Your task to perform on an android device: See recent photos Image 0: 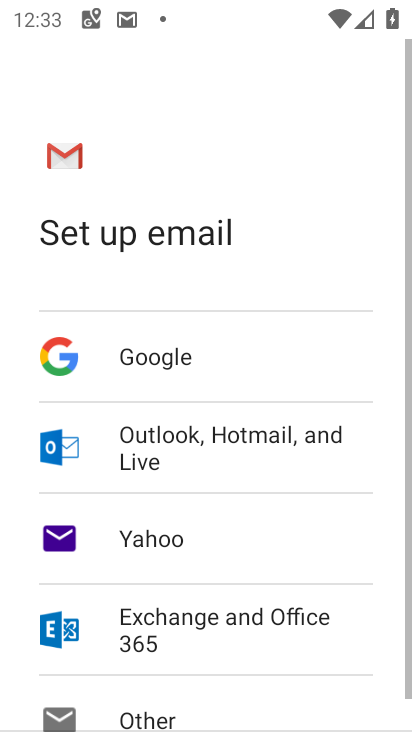
Step 0: press home button
Your task to perform on an android device: See recent photos Image 1: 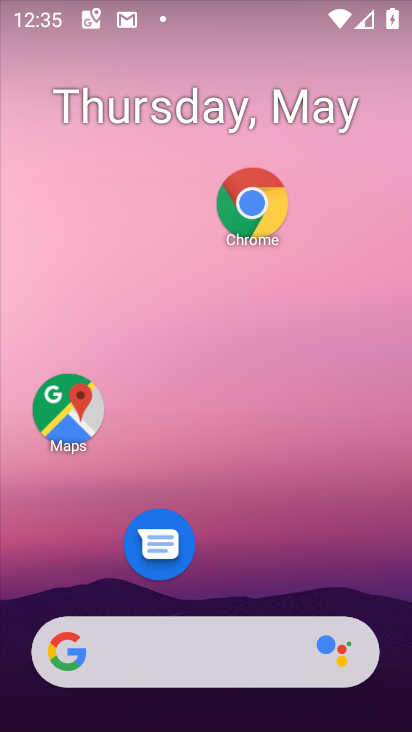
Step 1: drag from (240, 661) to (407, 196)
Your task to perform on an android device: See recent photos Image 2: 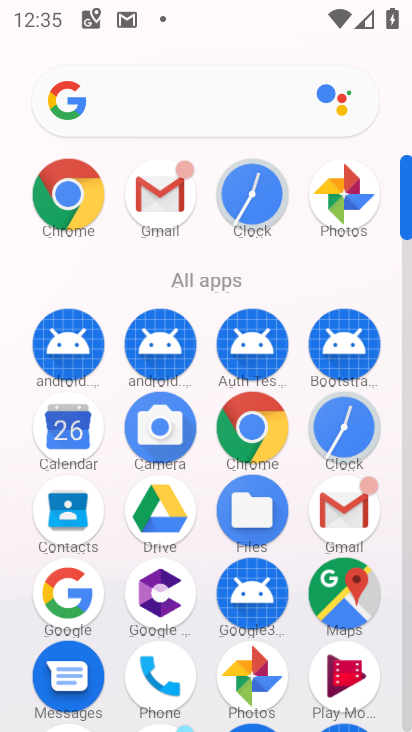
Step 2: click (376, 288)
Your task to perform on an android device: See recent photos Image 3: 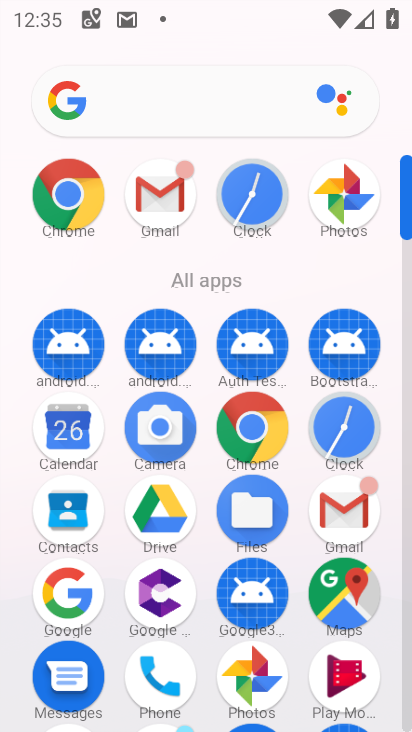
Step 3: click (272, 685)
Your task to perform on an android device: See recent photos Image 4: 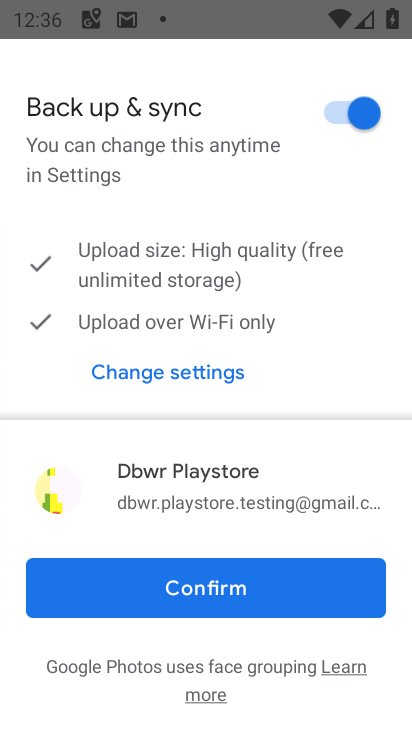
Step 4: click (318, 581)
Your task to perform on an android device: See recent photos Image 5: 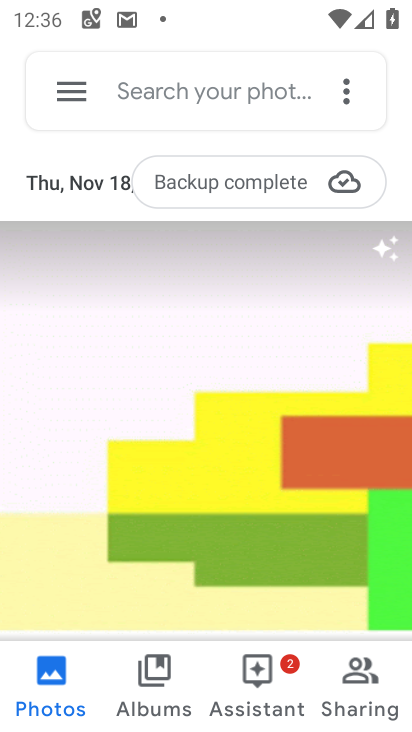
Step 5: task complete